Your task to perform on an android device: move an email to a new category in the gmail app Image 0: 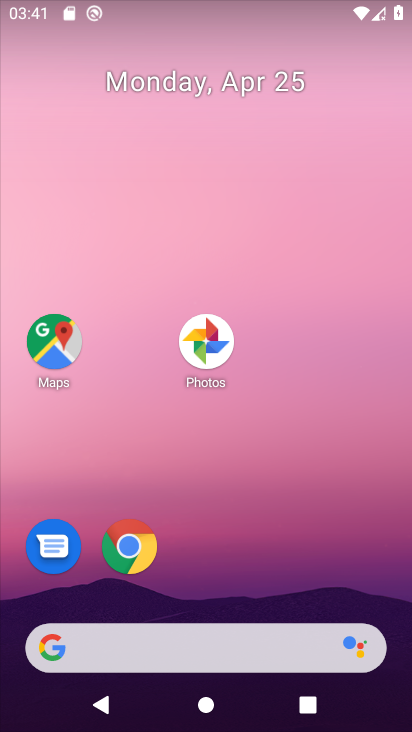
Step 0: drag from (302, 556) to (331, 240)
Your task to perform on an android device: move an email to a new category in the gmail app Image 1: 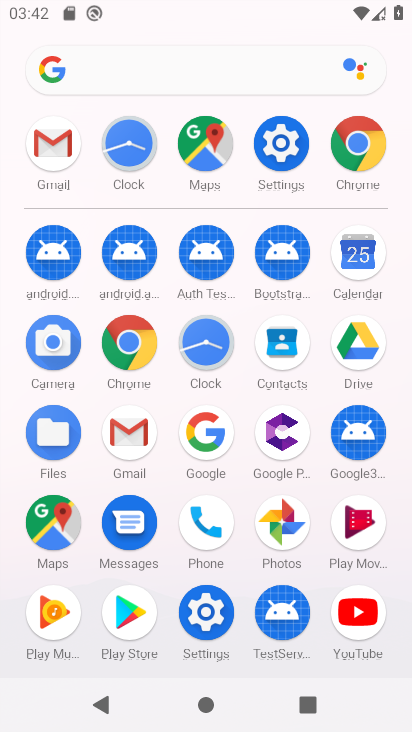
Step 1: click (132, 428)
Your task to perform on an android device: move an email to a new category in the gmail app Image 2: 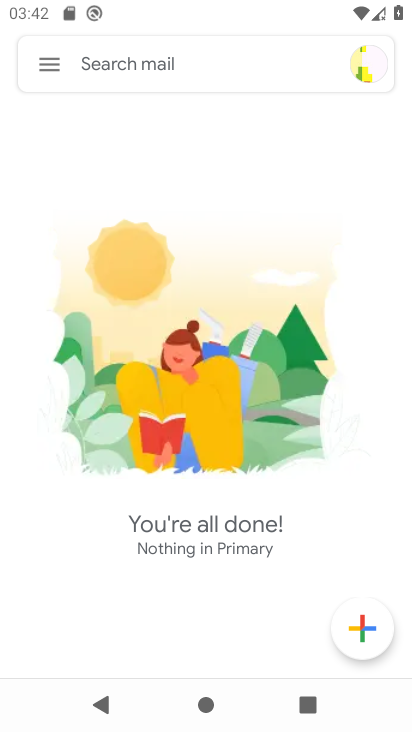
Step 2: click (40, 66)
Your task to perform on an android device: move an email to a new category in the gmail app Image 3: 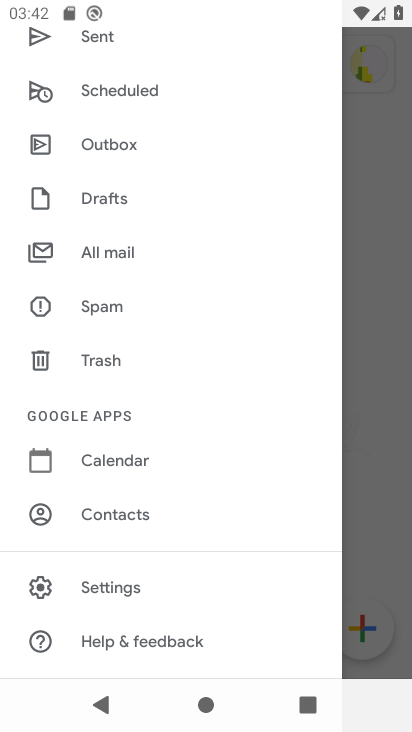
Step 3: click (100, 245)
Your task to perform on an android device: move an email to a new category in the gmail app Image 4: 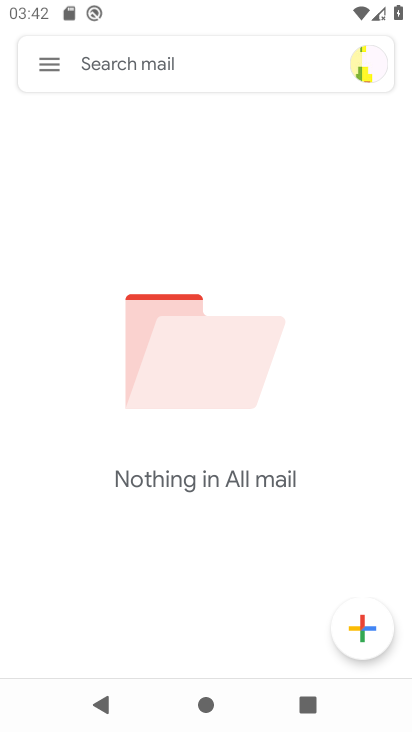
Step 4: task complete